Your task to perform on an android device: Open the phone app and click the voicemail tab. Image 0: 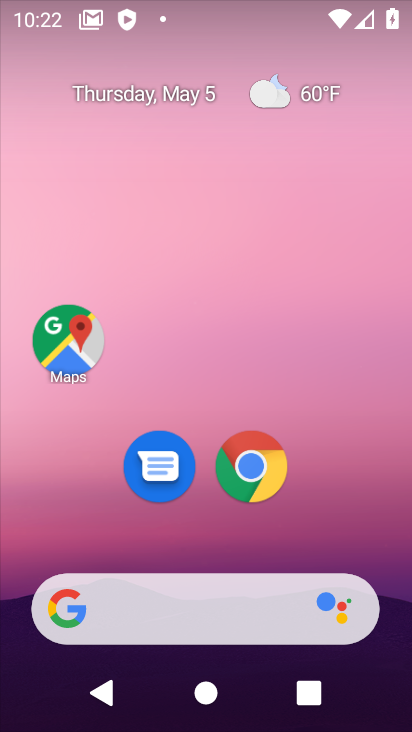
Step 0: drag from (193, 576) to (335, 202)
Your task to perform on an android device: Open the phone app and click the voicemail tab. Image 1: 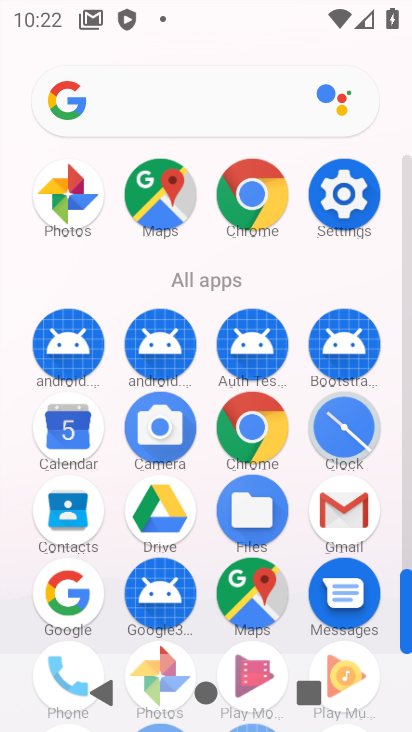
Step 1: drag from (212, 631) to (253, 376)
Your task to perform on an android device: Open the phone app and click the voicemail tab. Image 2: 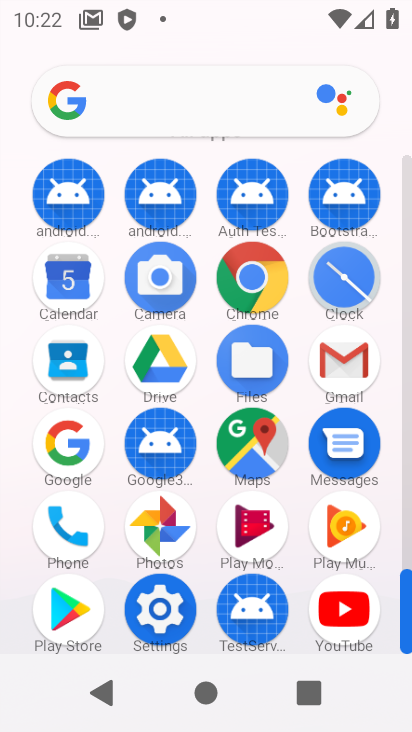
Step 2: click (64, 537)
Your task to perform on an android device: Open the phone app and click the voicemail tab. Image 3: 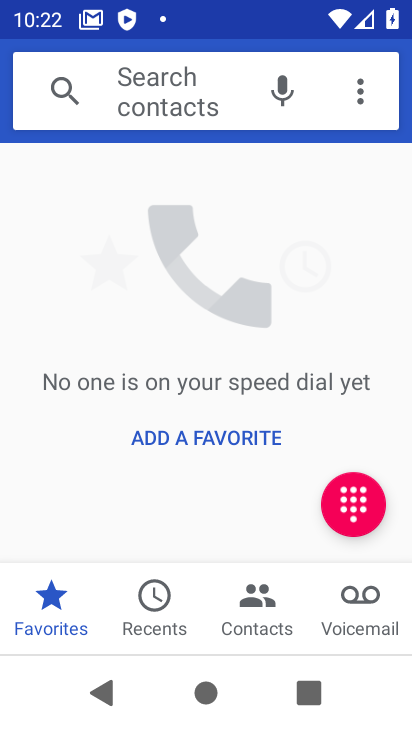
Step 3: click (335, 609)
Your task to perform on an android device: Open the phone app and click the voicemail tab. Image 4: 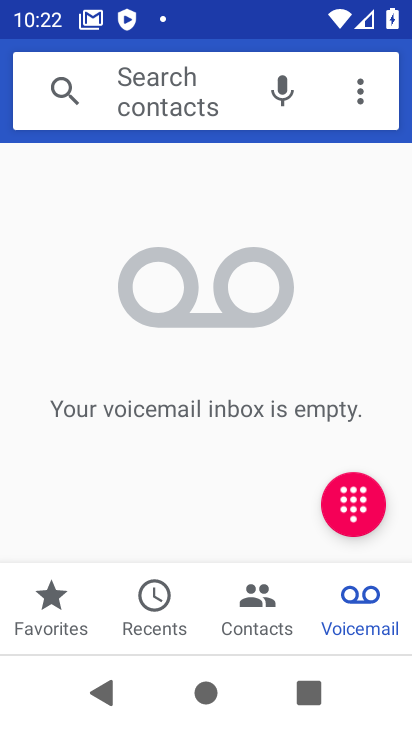
Step 4: click (373, 595)
Your task to perform on an android device: Open the phone app and click the voicemail tab. Image 5: 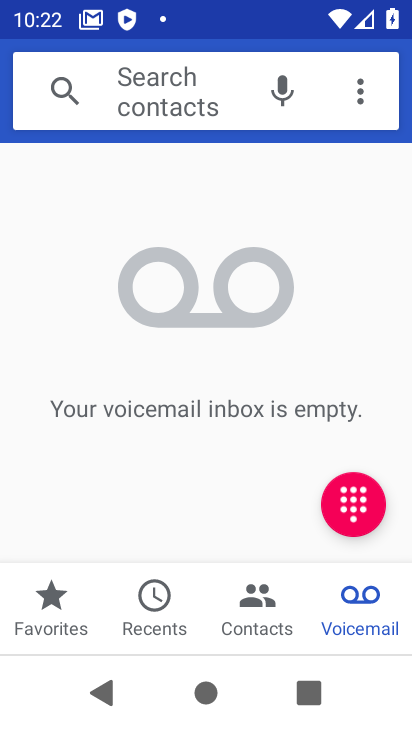
Step 5: task complete